Your task to perform on an android device: Find coffee shops on Maps Image 0: 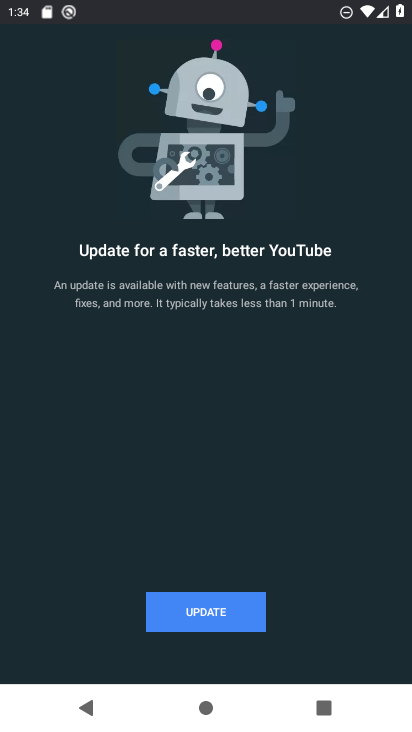
Step 0: press home button
Your task to perform on an android device: Find coffee shops on Maps Image 1: 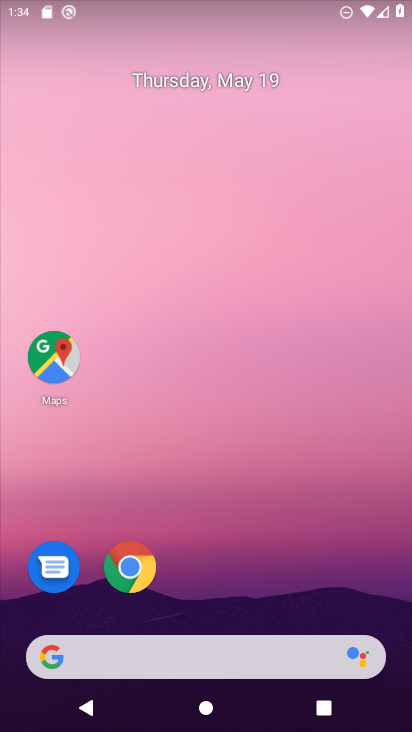
Step 1: click (56, 360)
Your task to perform on an android device: Find coffee shops on Maps Image 2: 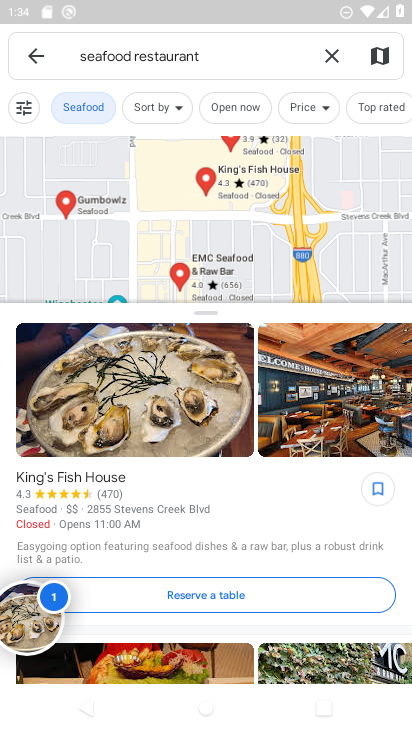
Step 2: click (323, 49)
Your task to perform on an android device: Find coffee shops on Maps Image 3: 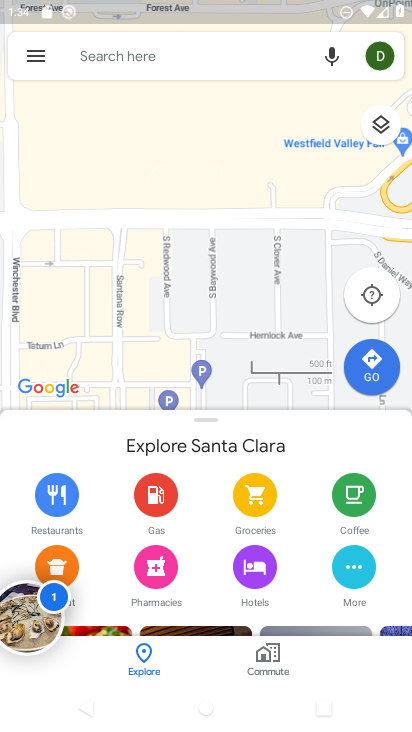
Step 3: click (227, 60)
Your task to perform on an android device: Find coffee shops on Maps Image 4: 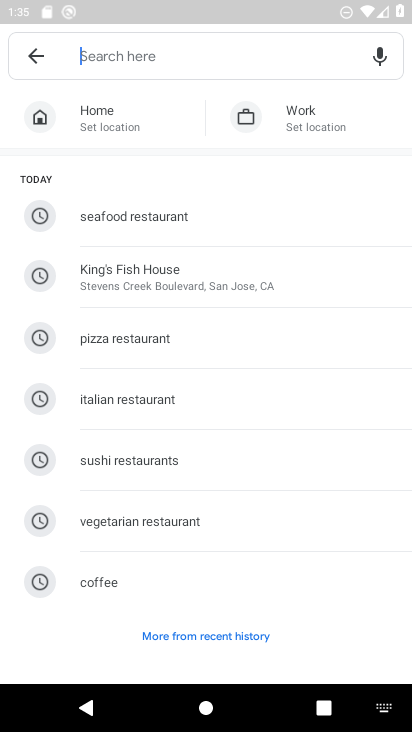
Step 4: type "coffee shop"
Your task to perform on an android device: Find coffee shops on Maps Image 5: 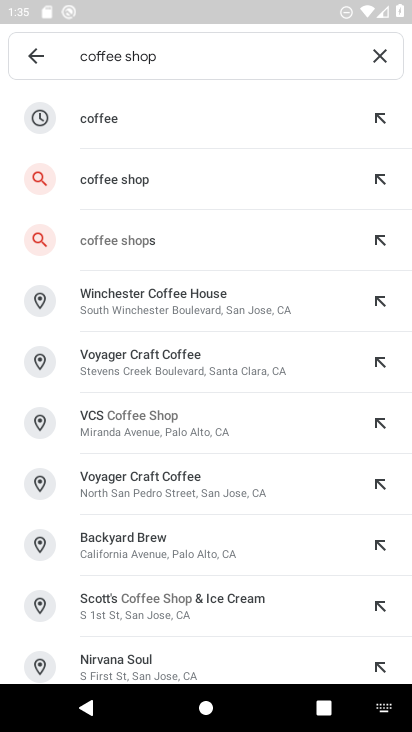
Step 5: click (195, 181)
Your task to perform on an android device: Find coffee shops on Maps Image 6: 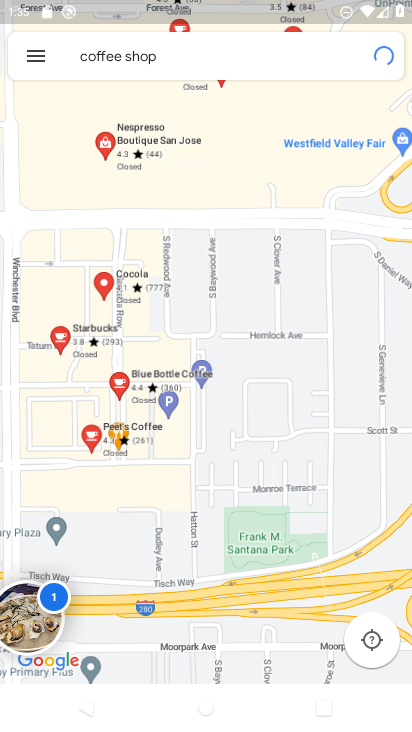
Step 6: click (226, 332)
Your task to perform on an android device: Find coffee shops on Maps Image 7: 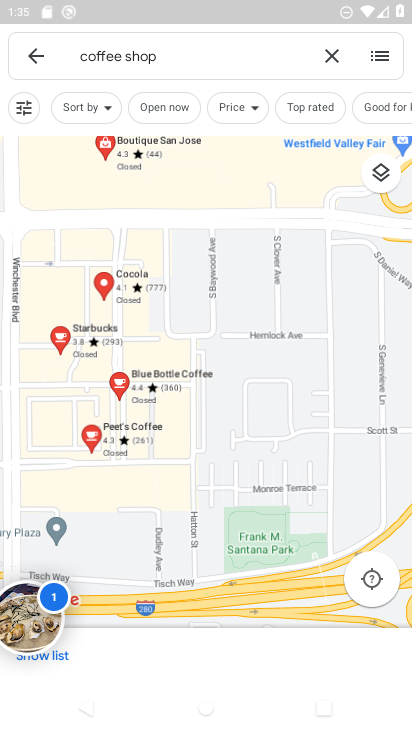
Step 7: click (157, 42)
Your task to perform on an android device: Find coffee shops on Maps Image 8: 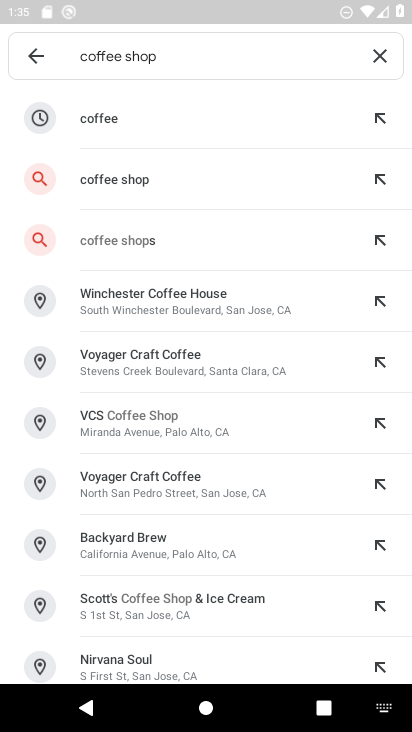
Step 8: click (154, 233)
Your task to perform on an android device: Find coffee shops on Maps Image 9: 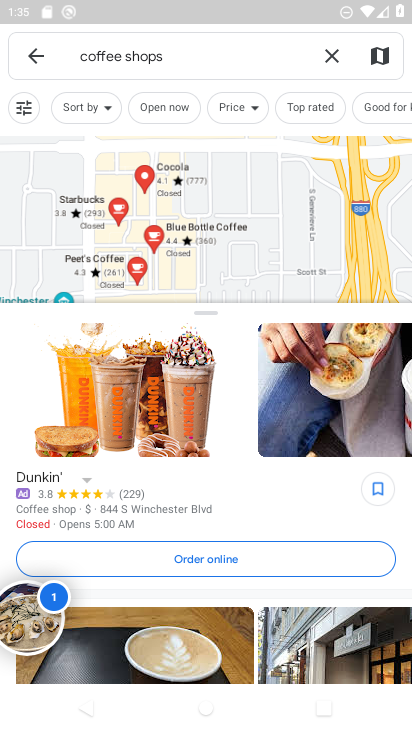
Step 9: task complete